Your task to perform on an android device: Open Maps and search for coffee Image 0: 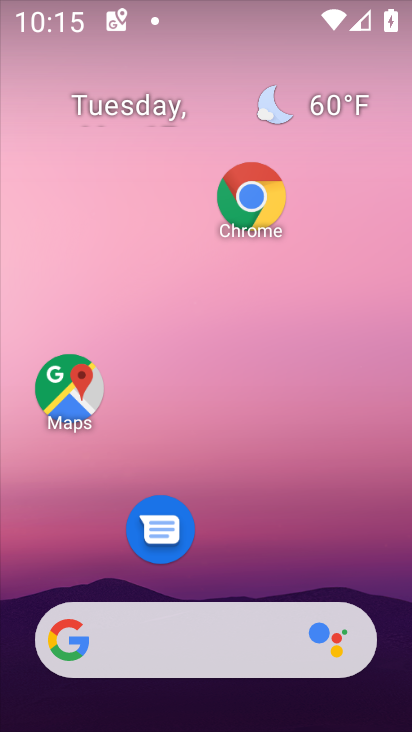
Step 0: click (78, 384)
Your task to perform on an android device: Open Maps and search for coffee Image 1: 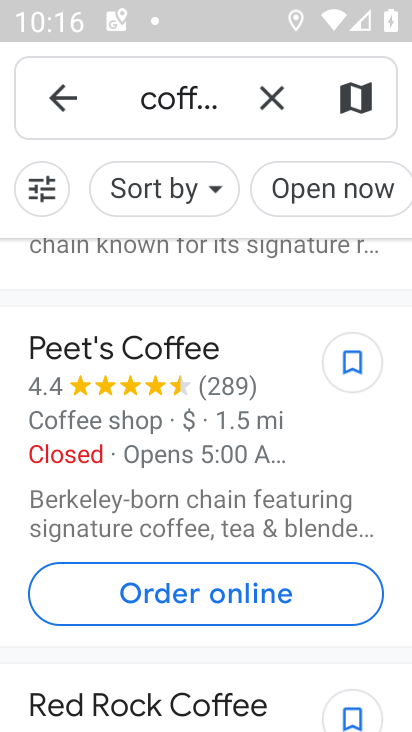
Step 1: task complete